Your task to perform on an android device: turn notification dots on Image 0: 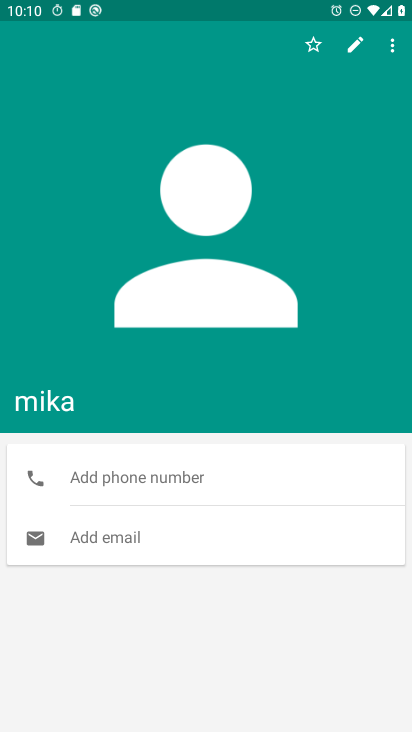
Step 0: press home button
Your task to perform on an android device: turn notification dots on Image 1: 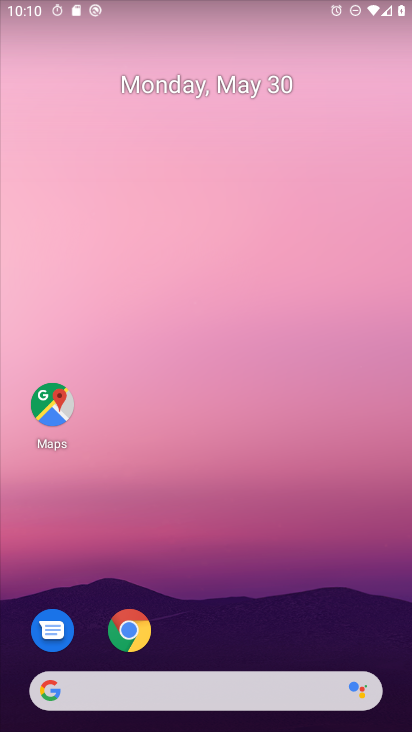
Step 1: drag from (351, 624) to (258, 10)
Your task to perform on an android device: turn notification dots on Image 2: 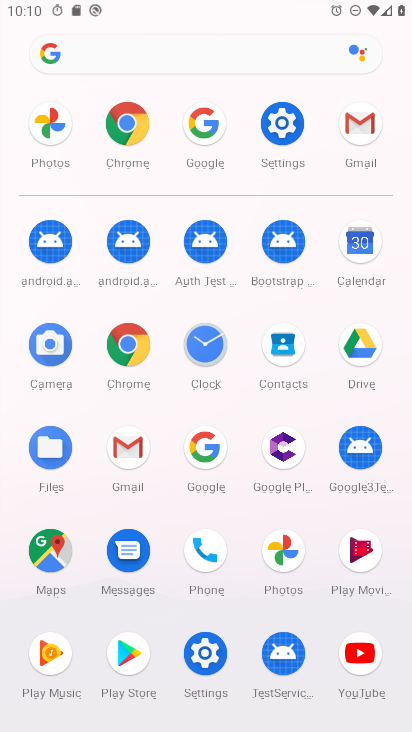
Step 2: click (289, 135)
Your task to perform on an android device: turn notification dots on Image 3: 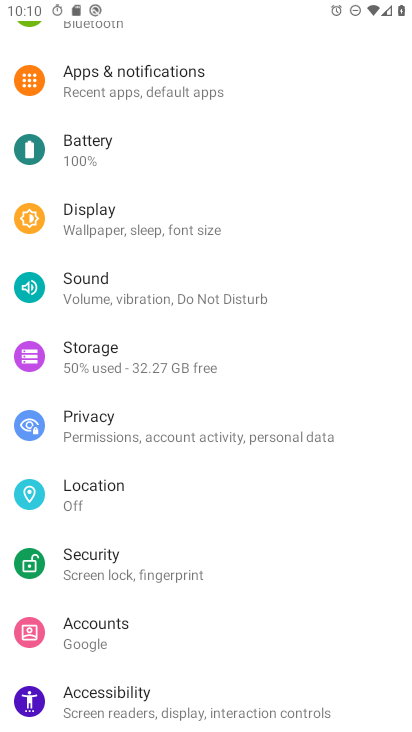
Step 3: click (174, 91)
Your task to perform on an android device: turn notification dots on Image 4: 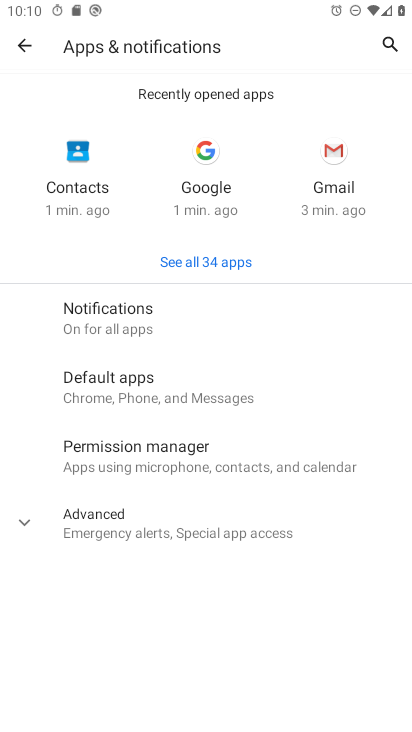
Step 4: click (202, 335)
Your task to perform on an android device: turn notification dots on Image 5: 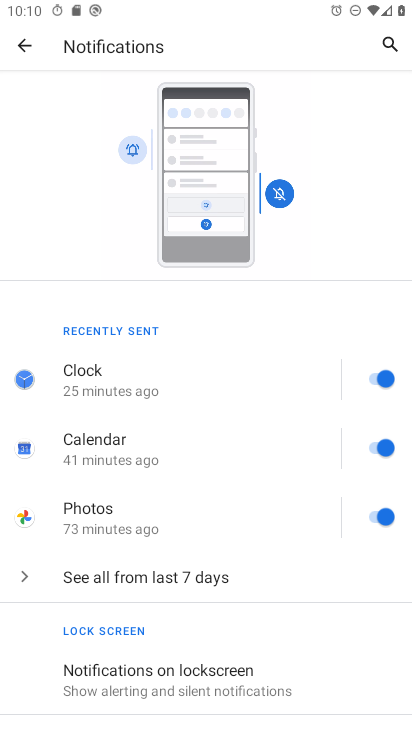
Step 5: drag from (204, 671) to (198, 170)
Your task to perform on an android device: turn notification dots on Image 6: 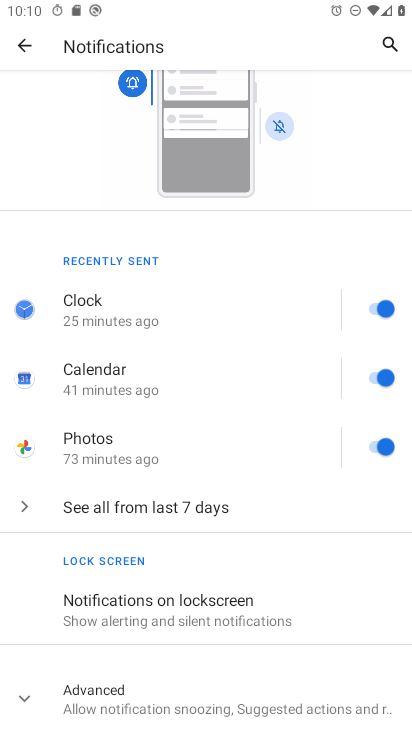
Step 6: click (191, 692)
Your task to perform on an android device: turn notification dots on Image 7: 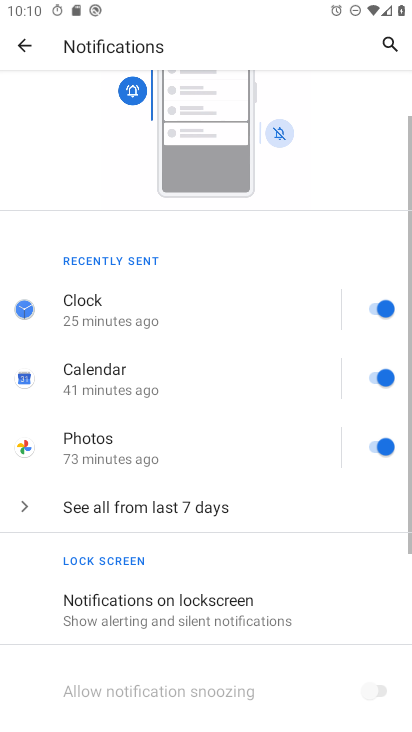
Step 7: drag from (192, 692) to (196, 192)
Your task to perform on an android device: turn notification dots on Image 8: 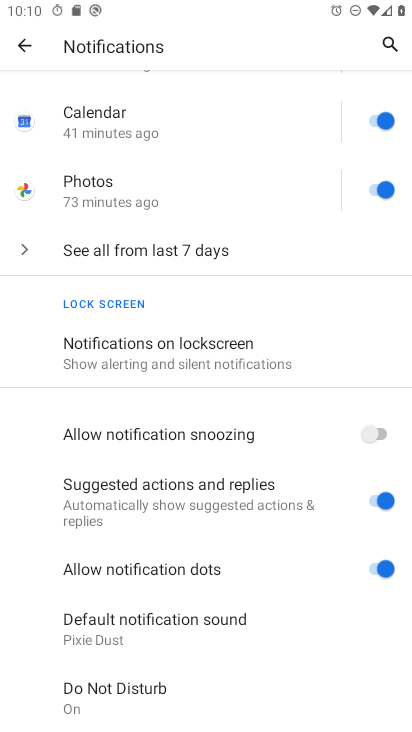
Step 8: click (318, 565)
Your task to perform on an android device: turn notification dots on Image 9: 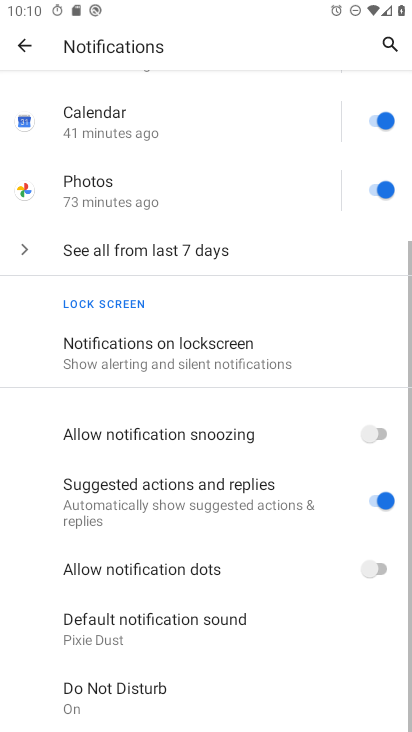
Step 9: click (318, 565)
Your task to perform on an android device: turn notification dots on Image 10: 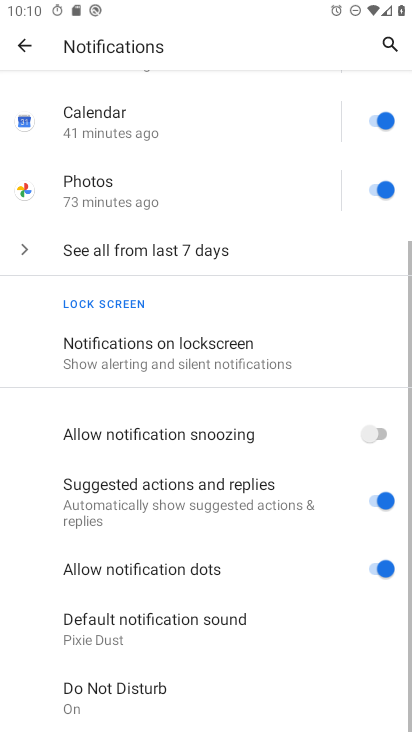
Step 10: task complete